Your task to perform on an android device: empty trash in google photos Image 0: 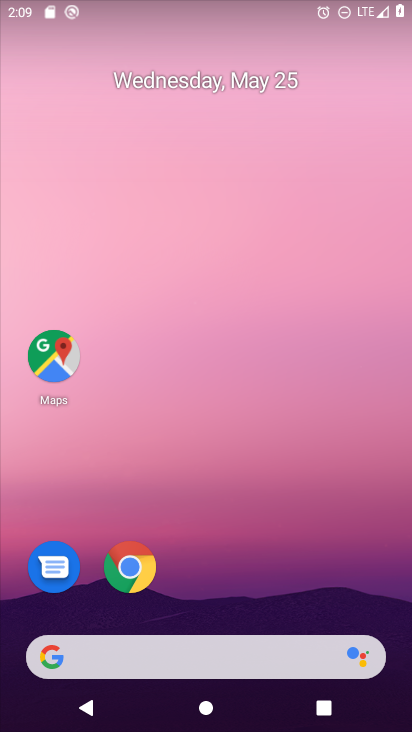
Step 0: drag from (404, 710) to (410, 493)
Your task to perform on an android device: empty trash in google photos Image 1: 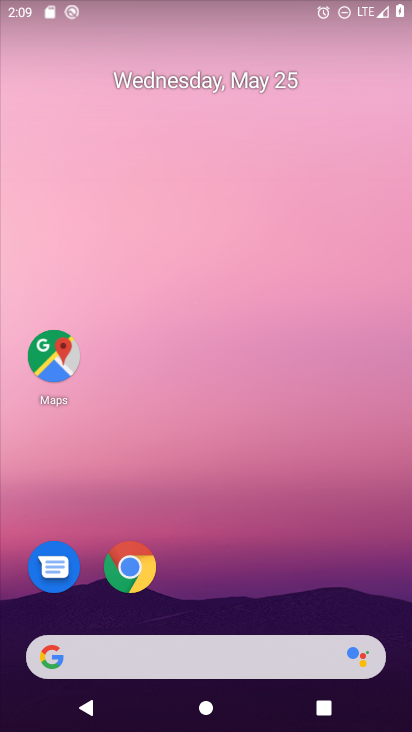
Step 1: drag from (396, 694) to (411, 126)
Your task to perform on an android device: empty trash in google photos Image 2: 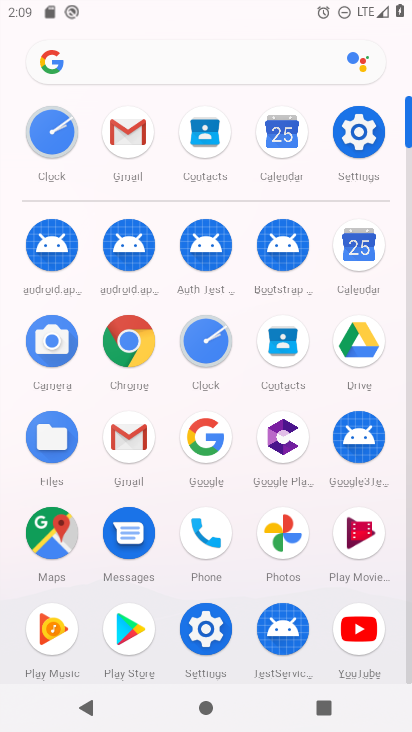
Step 2: click (274, 525)
Your task to perform on an android device: empty trash in google photos Image 3: 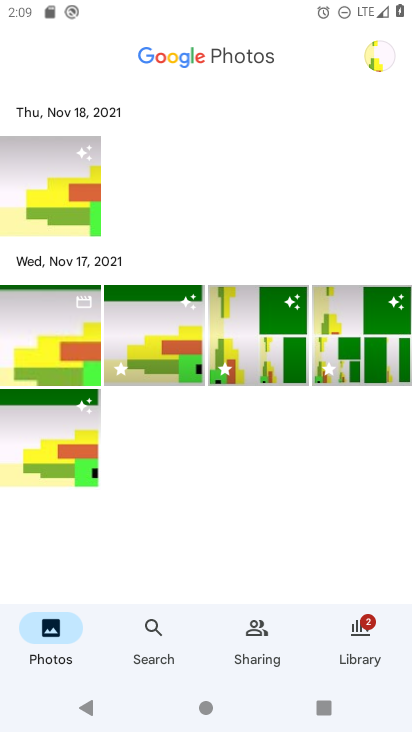
Step 3: task complete